Your task to perform on an android device: open chrome privacy settings Image 0: 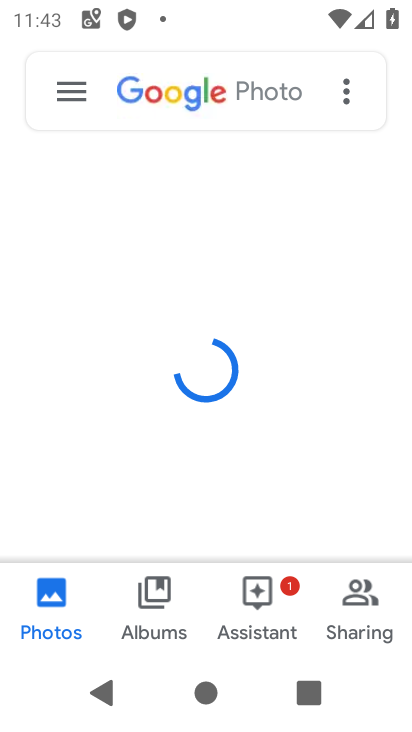
Step 0: press home button
Your task to perform on an android device: open chrome privacy settings Image 1: 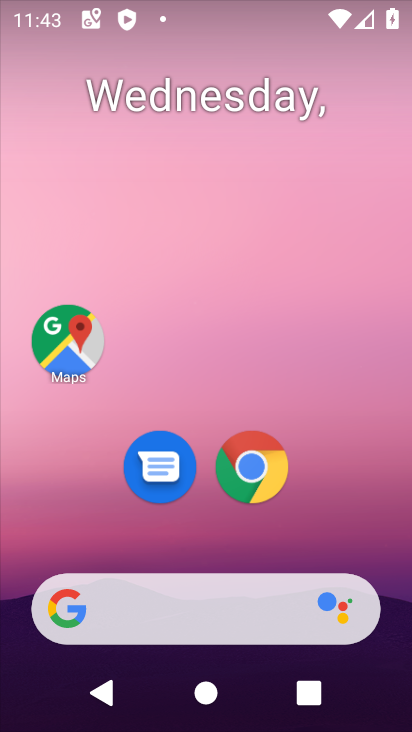
Step 1: click (251, 478)
Your task to perform on an android device: open chrome privacy settings Image 2: 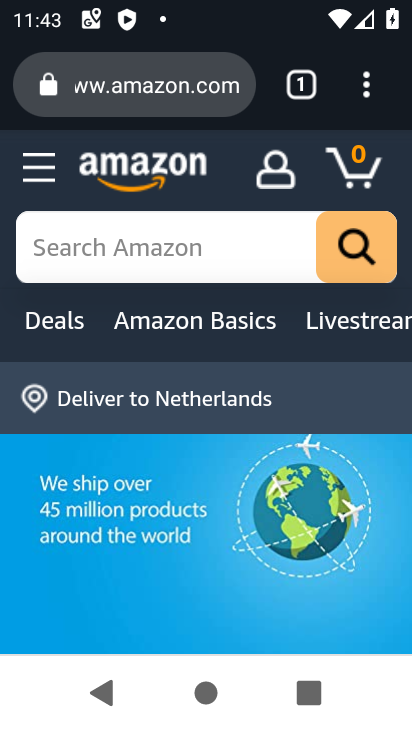
Step 2: drag from (369, 87) to (192, 523)
Your task to perform on an android device: open chrome privacy settings Image 3: 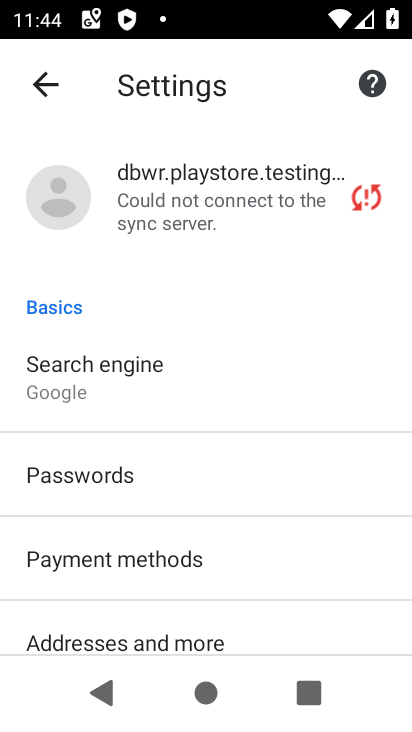
Step 3: drag from (228, 557) to (319, 196)
Your task to perform on an android device: open chrome privacy settings Image 4: 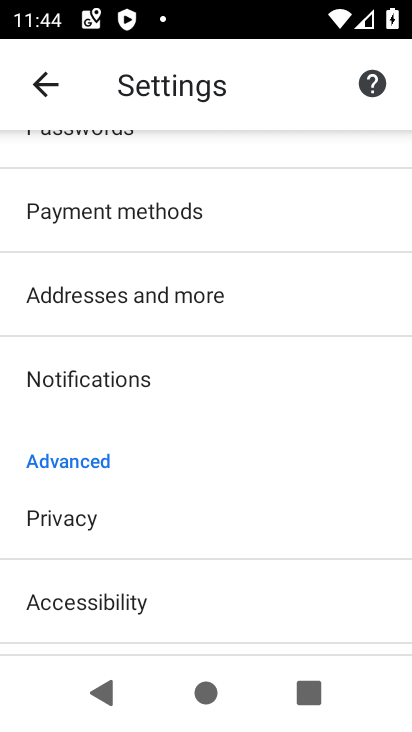
Step 4: click (68, 514)
Your task to perform on an android device: open chrome privacy settings Image 5: 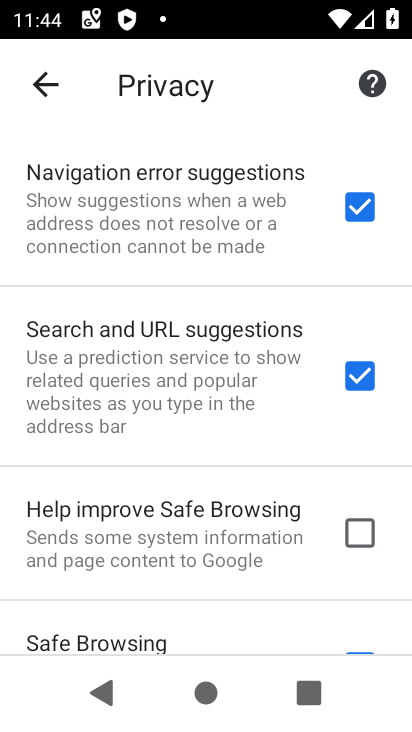
Step 5: task complete